Your task to perform on an android device: check battery use Image 0: 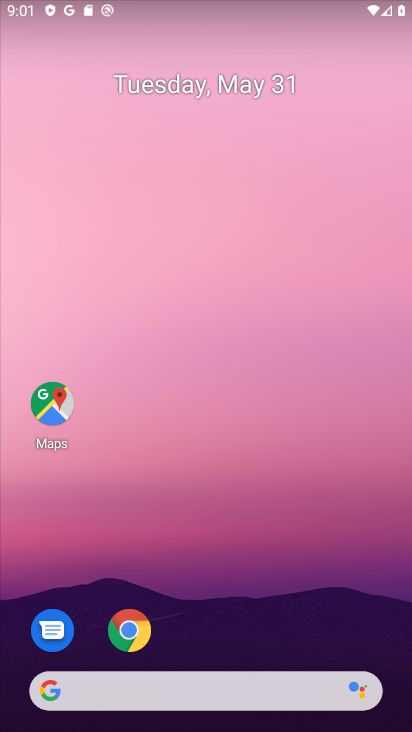
Step 0: drag from (179, 723) to (186, 70)
Your task to perform on an android device: check battery use Image 1: 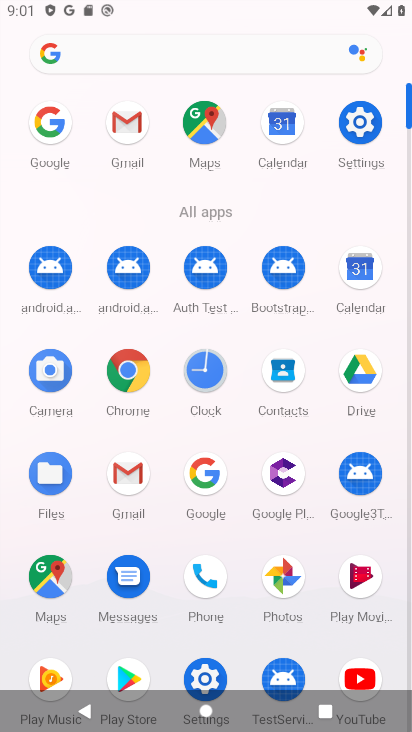
Step 1: click (347, 135)
Your task to perform on an android device: check battery use Image 2: 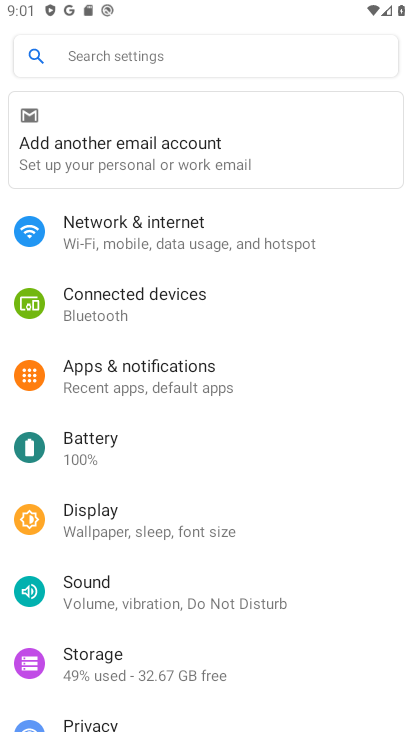
Step 2: click (116, 450)
Your task to perform on an android device: check battery use Image 3: 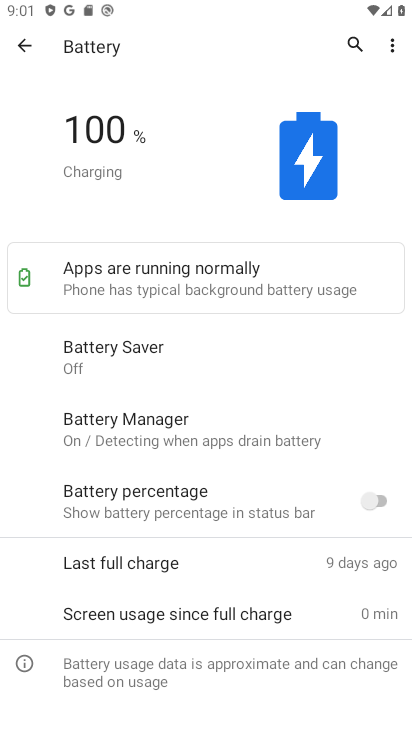
Step 3: click (384, 39)
Your task to perform on an android device: check battery use Image 4: 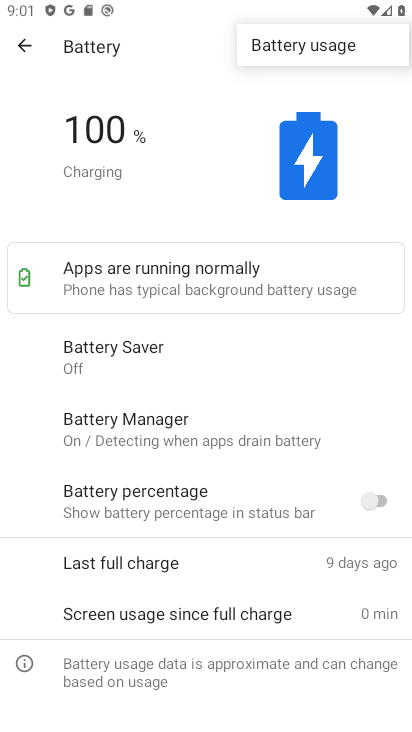
Step 4: click (321, 47)
Your task to perform on an android device: check battery use Image 5: 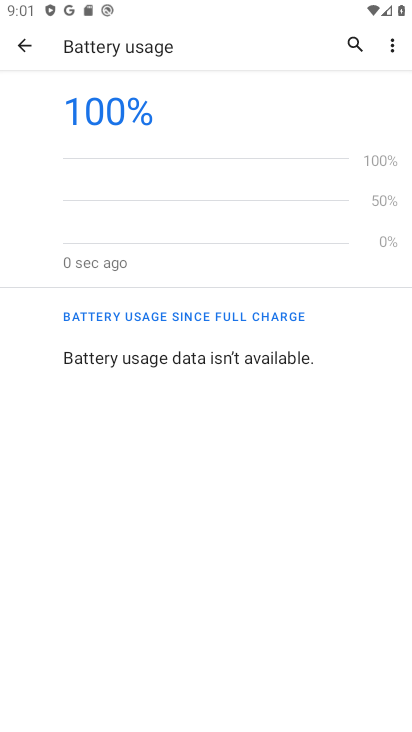
Step 5: task complete